Your task to perform on an android device: set the timer Image 0: 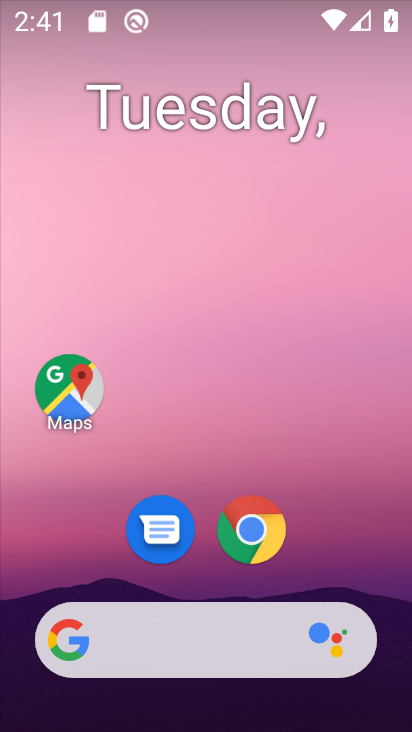
Step 0: drag from (241, 277) to (252, 240)
Your task to perform on an android device: set the timer Image 1: 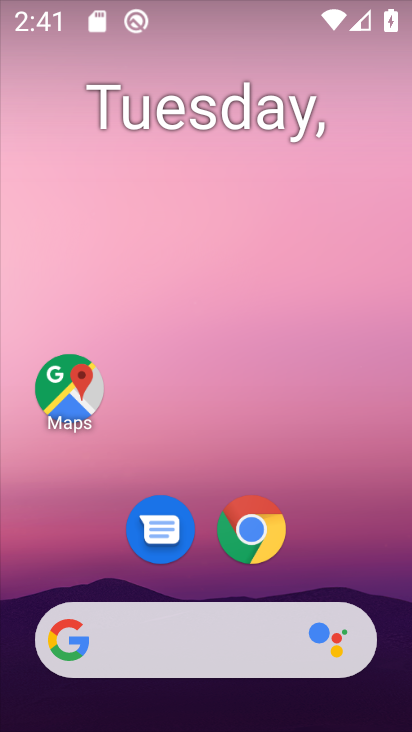
Step 1: drag from (217, 555) to (260, 219)
Your task to perform on an android device: set the timer Image 2: 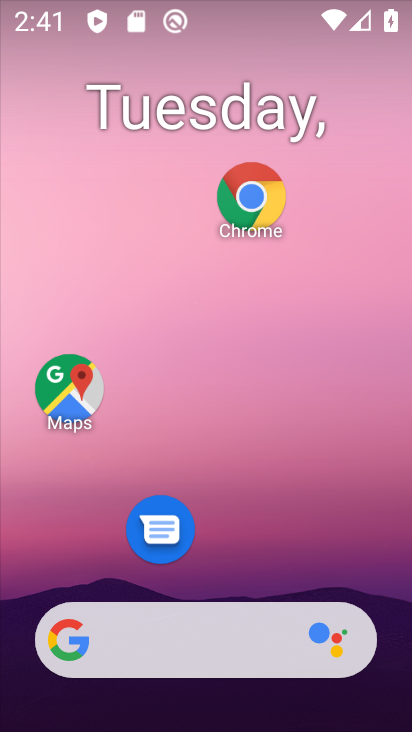
Step 2: drag from (217, 492) to (217, 249)
Your task to perform on an android device: set the timer Image 3: 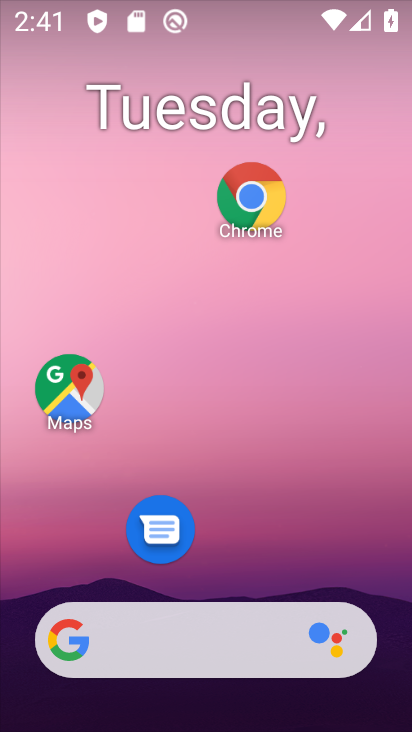
Step 3: drag from (228, 597) to (230, 120)
Your task to perform on an android device: set the timer Image 4: 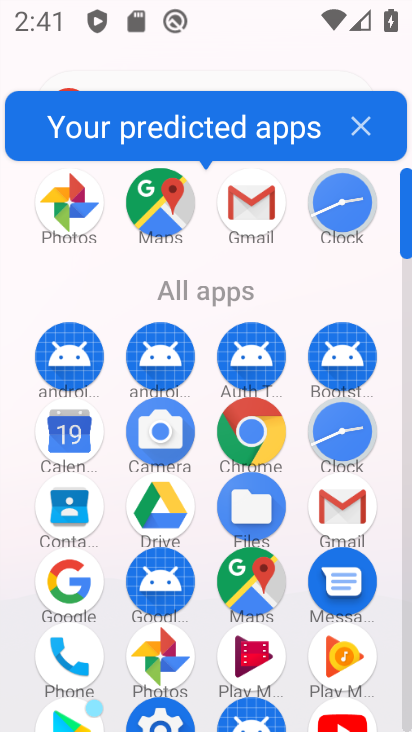
Step 4: click (357, 128)
Your task to perform on an android device: set the timer Image 5: 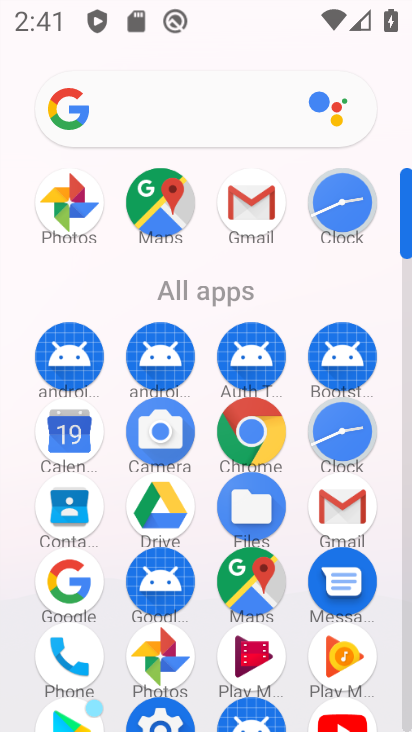
Step 5: click (337, 414)
Your task to perform on an android device: set the timer Image 6: 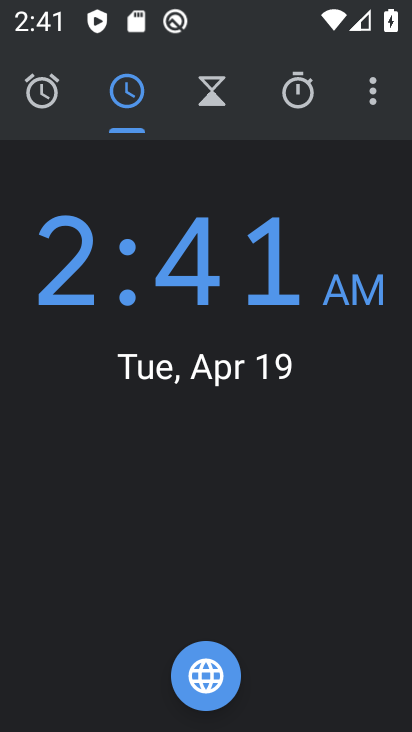
Step 6: click (211, 106)
Your task to perform on an android device: set the timer Image 7: 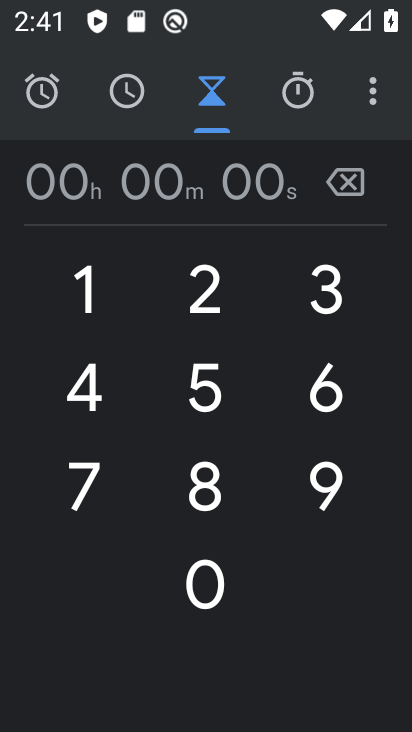
Step 7: click (218, 587)
Your task to perform on an android device: set the timer Image 8: 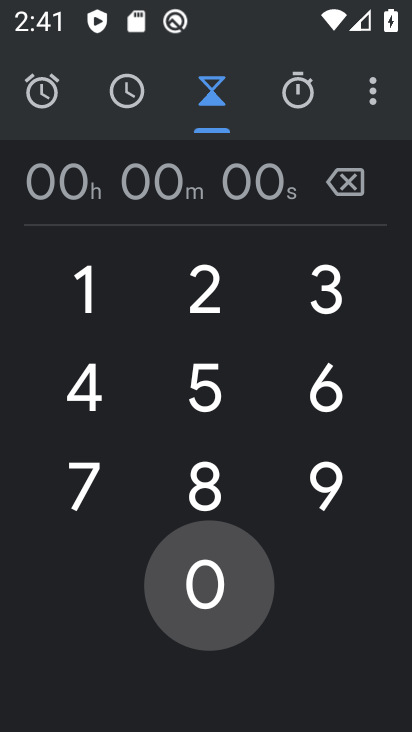
Step 8: click (204, 468)
Your task to perform on an android device: set the timer Image 9: 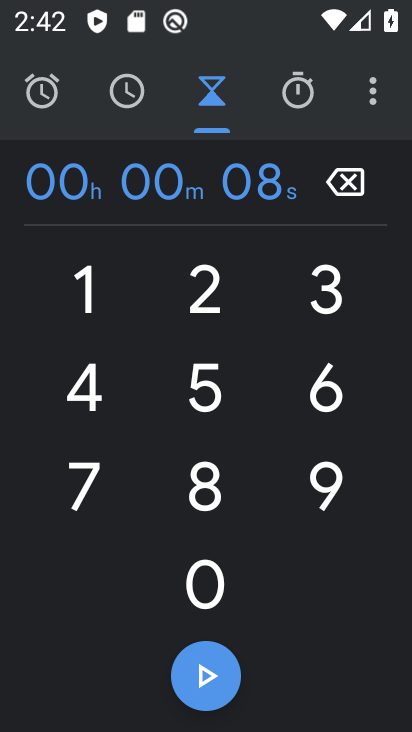
Step 9: click (346, 182)
Your task to perform on an android device: set the timer Image 10: 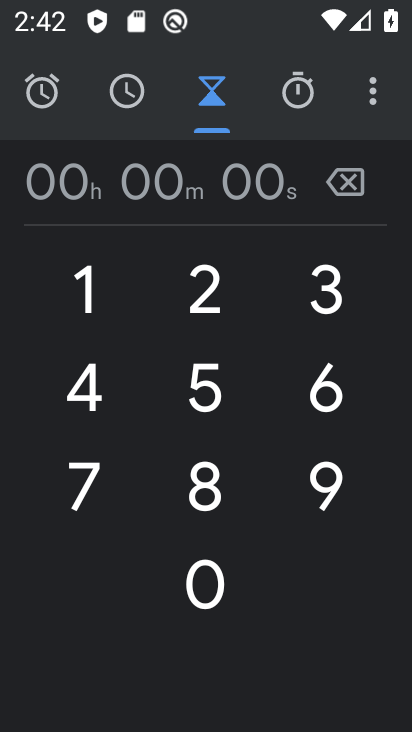
Step 10: click (210, 573)
Your task to perform on an android device: set the timer Image 11: 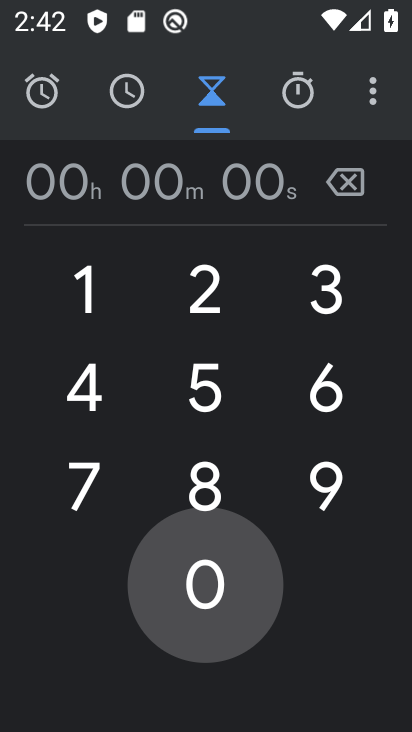
Step 11: click (86, 276)
Your task to perform on an android device: set the timer Image 12: 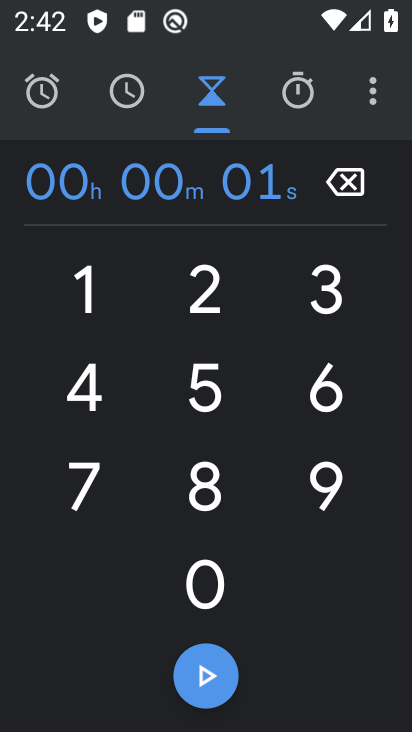
Step 12: click (211, 592)
Your task to perform on an android device: set the timer Image 13: 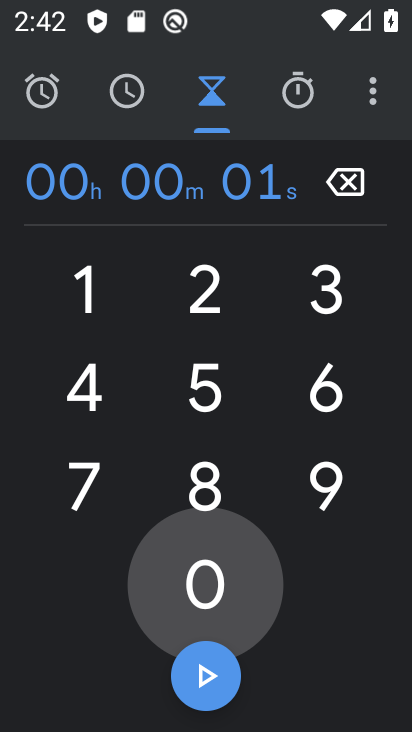
Step 13: click (208, 492)
Your task to perform on an android device: set the timer Image 14: 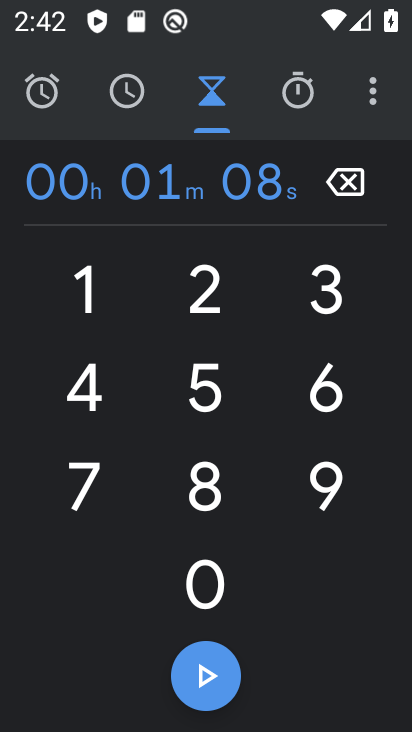
Step 14: click (205, 588)
Your task to perform on an android device: set the timer Image 15: 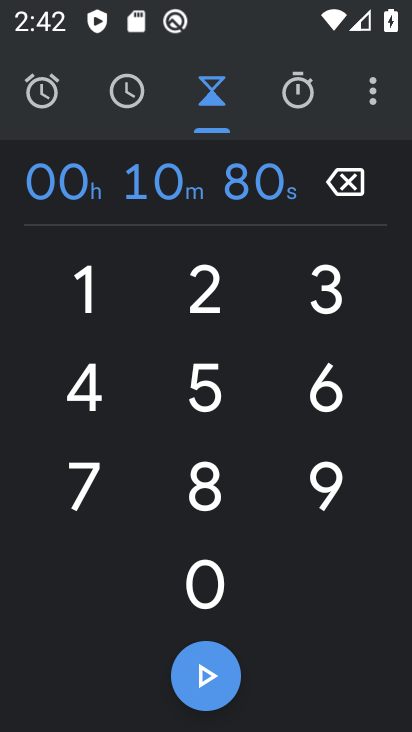
Step 15: click (197, 678)
Your task to perform on an android device: set the timer Image 16: 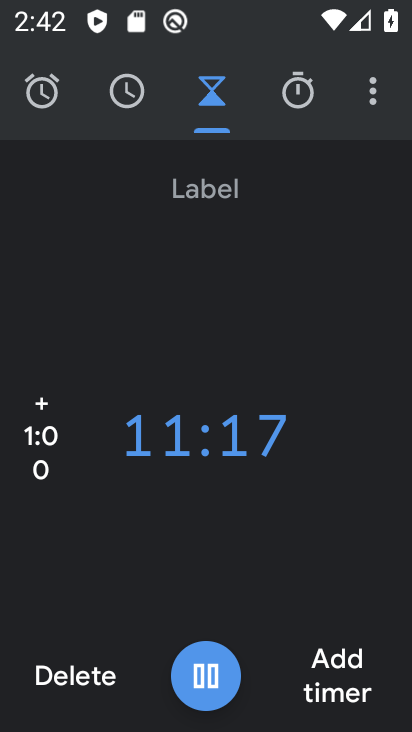
Step 16: task complete